Your task to perform on an android device: set the timer Image 0: 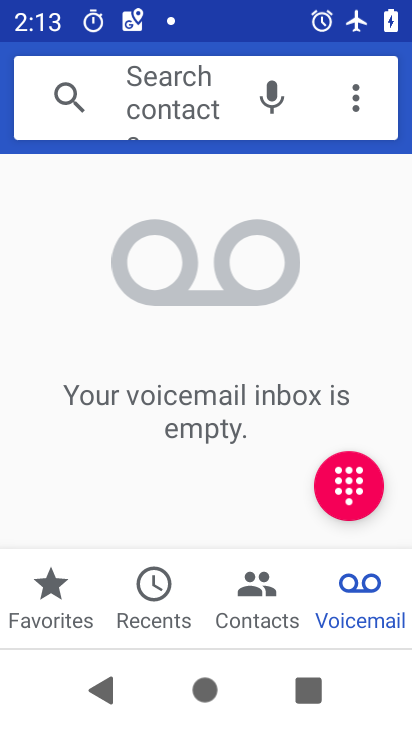
Step 0: press home button
Your task to perform on an android device: set the timer Image 1: 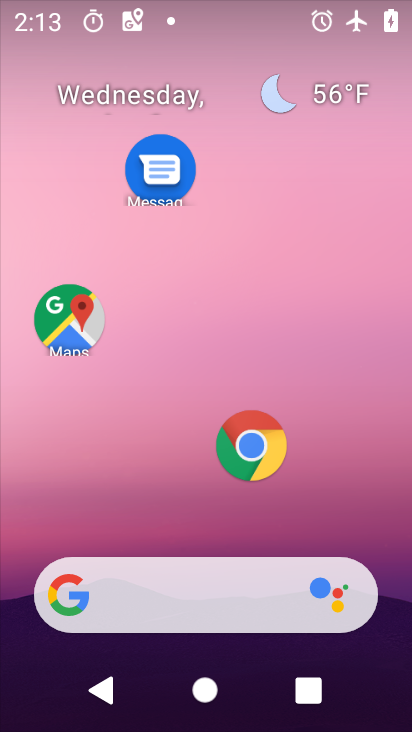
Step 1: drag from (195, 512) to (257, 156)
Your task to perform on an android device: set the timer Image 2: 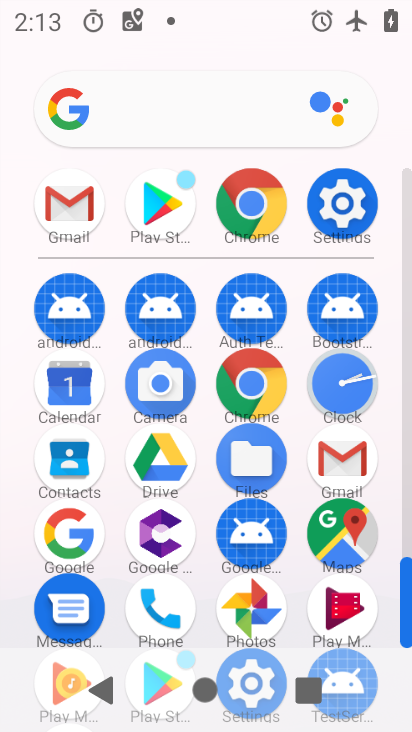
Step 2: drag from (202, 269) to (205, 200)
Your task to perform on an android device: set the timer Image 3: 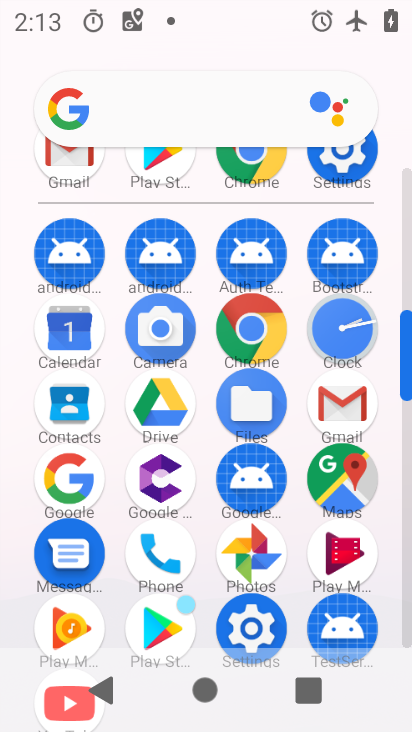
Step 3: drag from (204, 215) to (192, 126)
Your task to perform on an android device: set the timer Image 4: 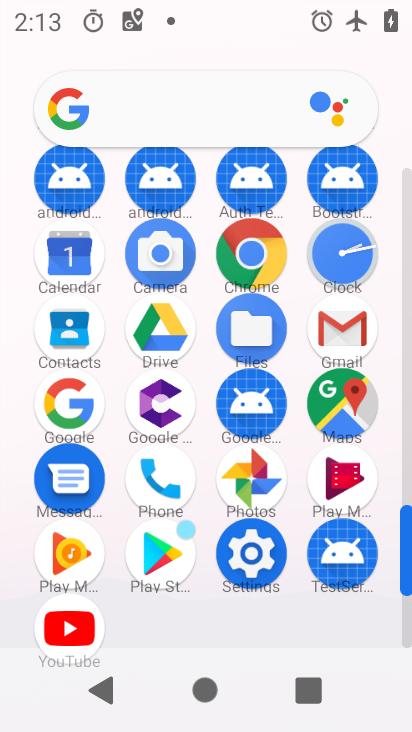
Step 4: click (364, 262)
Your task to perform on an android device: set the timer Image 5: 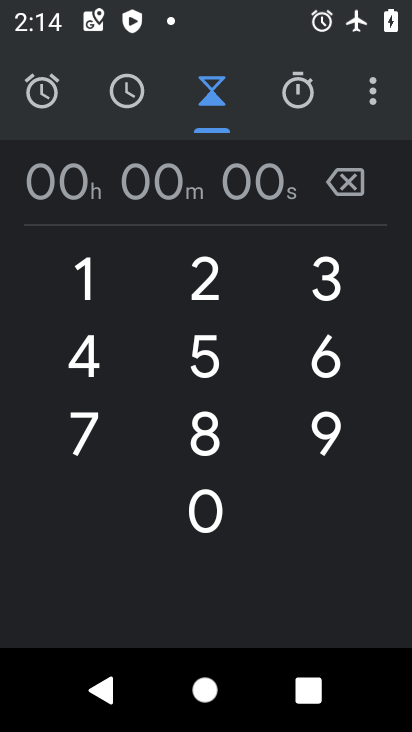
Step 5: click (198, 374)
Your task to perform on an android device: set the timer Image 6: 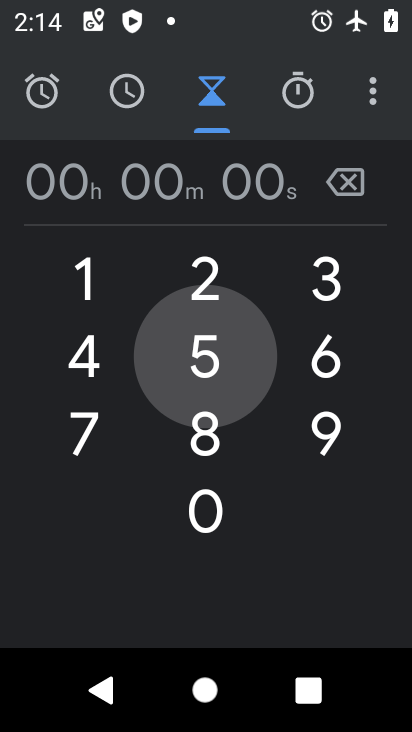
Step 6: click (198, 374)
Your task to perform on an android device: set the timer Image 7: 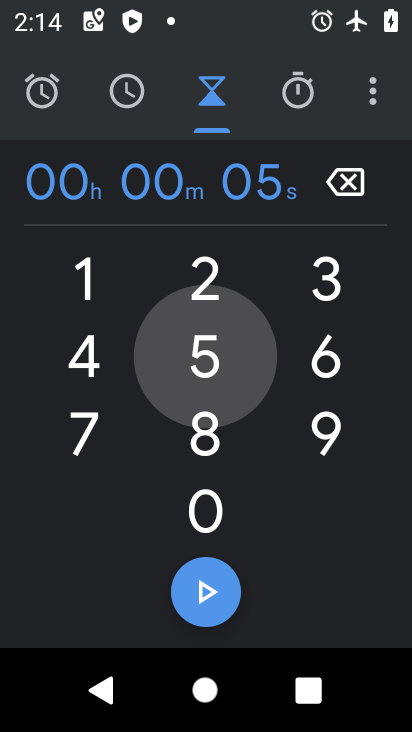
Step 7: click (198, 374)
Your task to perform on an android device: set the timer Image 8: 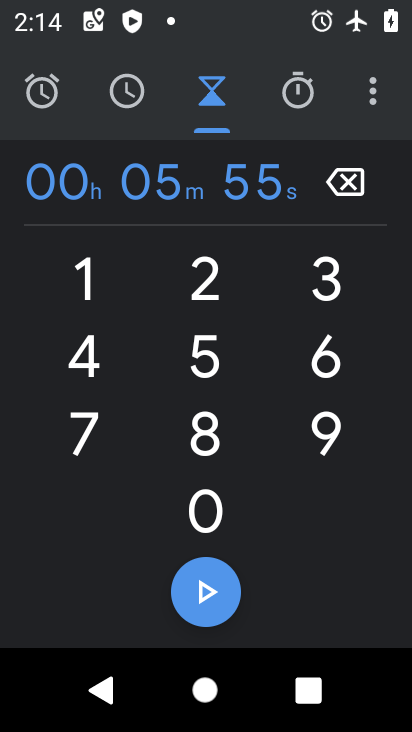
Step 8: click (296, 351)
Your task to perform on an android device: set the timer Image 9: 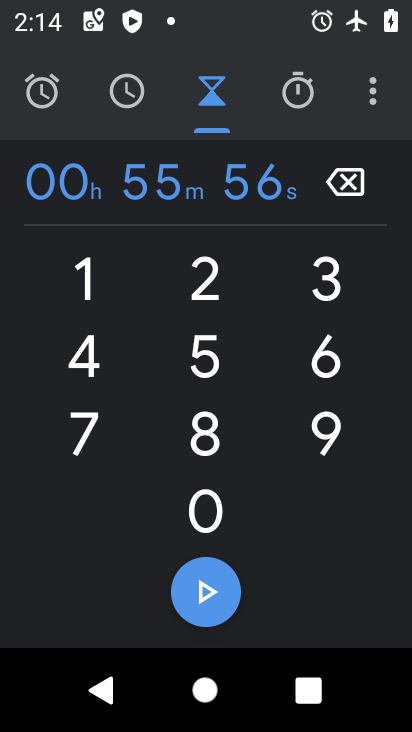
Step 9: click (236, 435)
Your task to perform on an android device: set the timer Image 10: 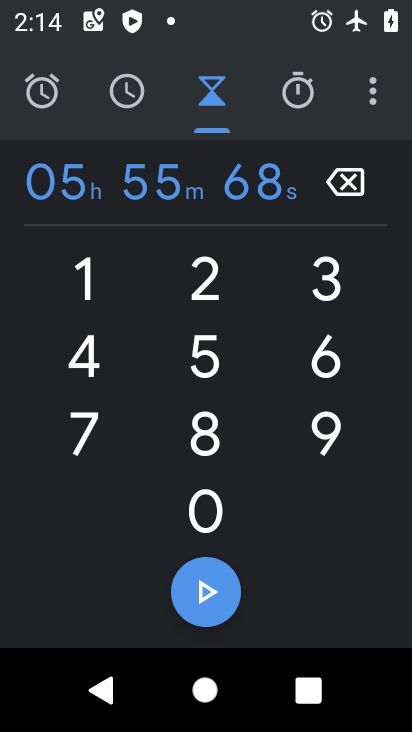
Step 10: click (195, 594)
Your task to perform on an android device: set the timer Image 11: 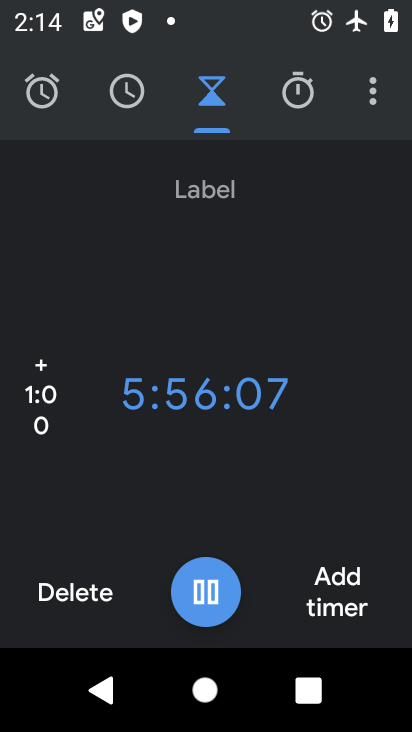
Step 11: task complete